Your task to perform on an android device: turn off priority inbox in the gmail app Image 0: 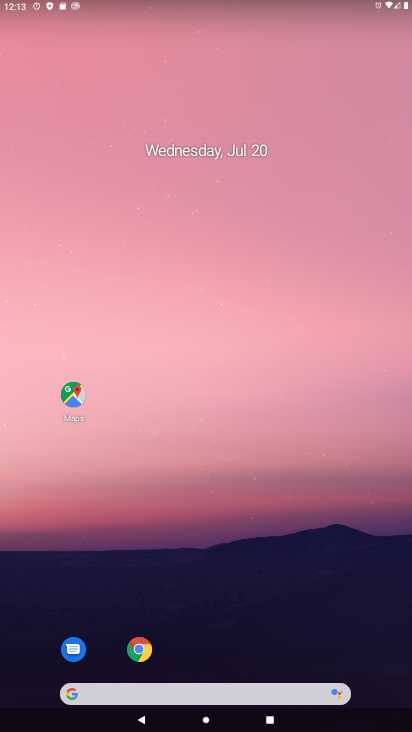
Step 0: drag from (225, 726) to (226, 319)
Your task to perform on an android device: turn off priority inbox in the gmail app Image 1: 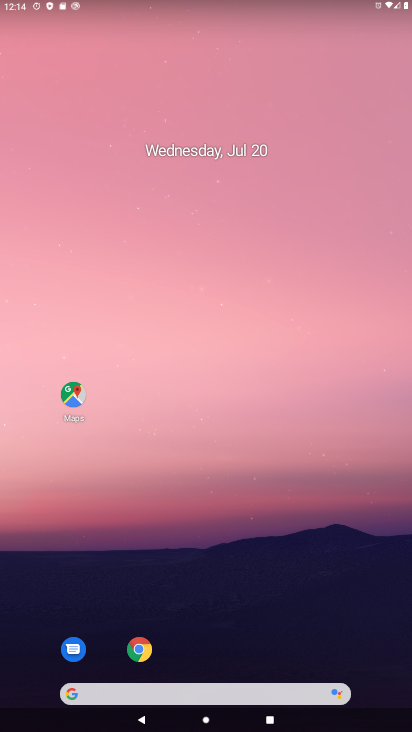
Step 1: drag from (240, 715) to (230, 50)
Your task to perform on an android device: turn off priority inbox in the gmail app Image 2: 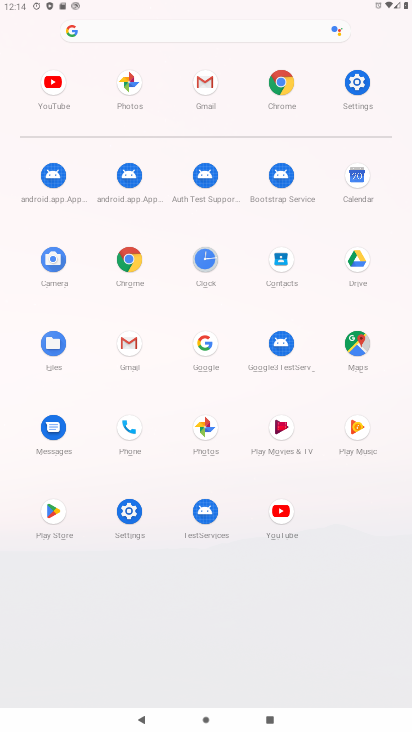
Step 2: click (123, 347)
Your task to perform on an android device: turn off priority inbox in the gmail app Image 3: 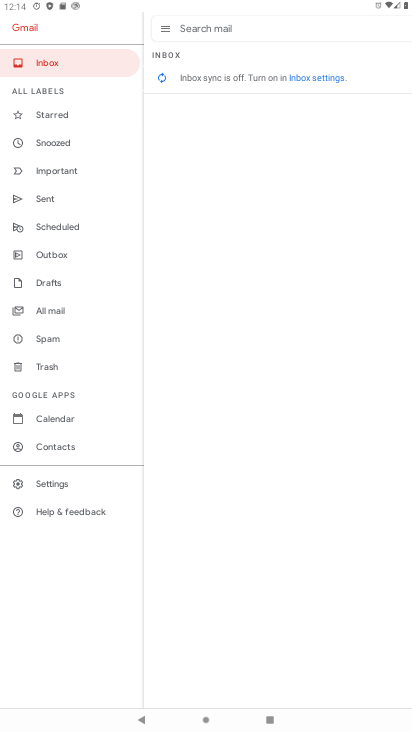
Step 3: click (49, 483)
Your task to perform on an android device: turn off priority inbox in the gmail app Image 4: 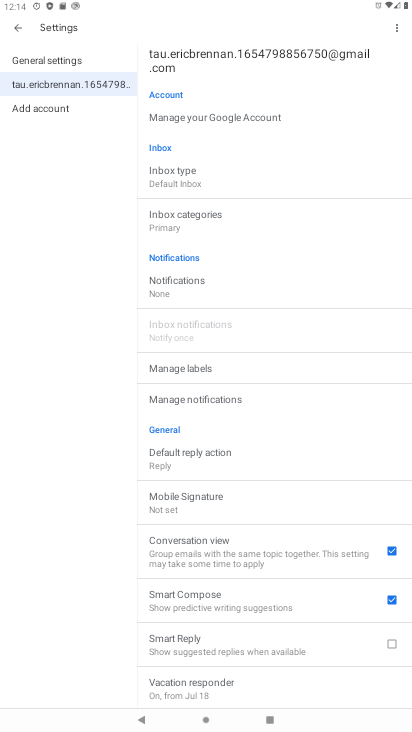
Step 4: task complete